Your task to perform on an android device: add a contact in the contacts app Image 0: 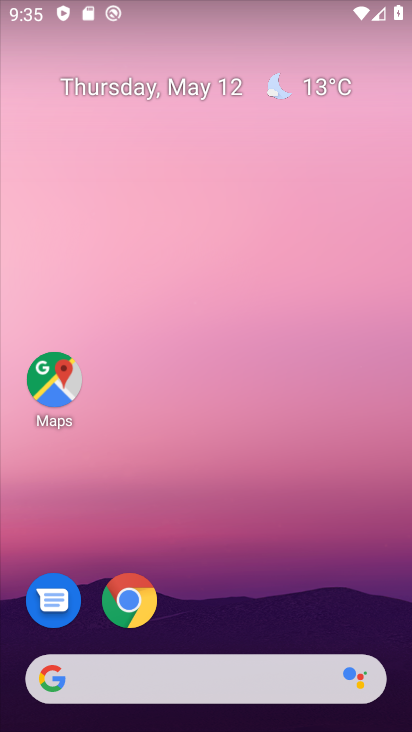
Step 0: drag from (233, 552) to (265, 38)
Your task to perform on an android device: add a contact in the contacts app Image 1: 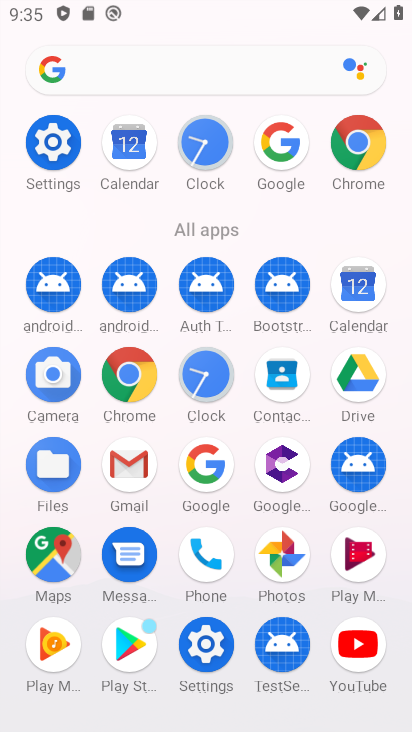
Step 1: click (286, 380)
Your task to perform on an android device: add a contact in the contacts app Image 2: 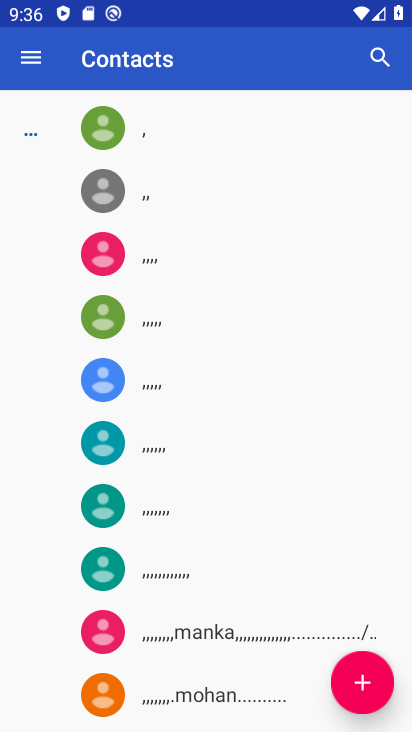
Step 2: click (362, 686)
Your task to perform on an android device: add a contact in the contacts app Image 3: 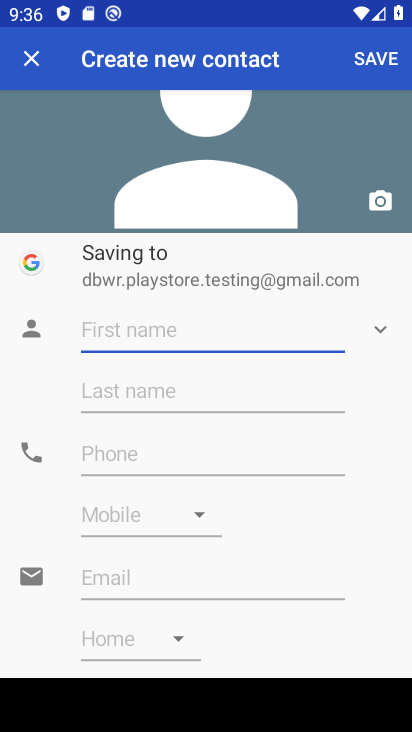
Step 3: click (145, 333)
Your task to perform on an android device: add a contact in the contacts app Image 4: 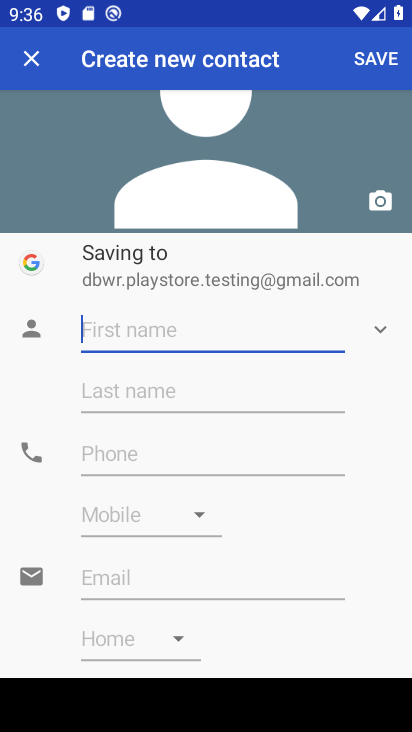
Step 4: type "cgcg"
Your task to perform on an android device: add a contact in the contacts app Image 5: 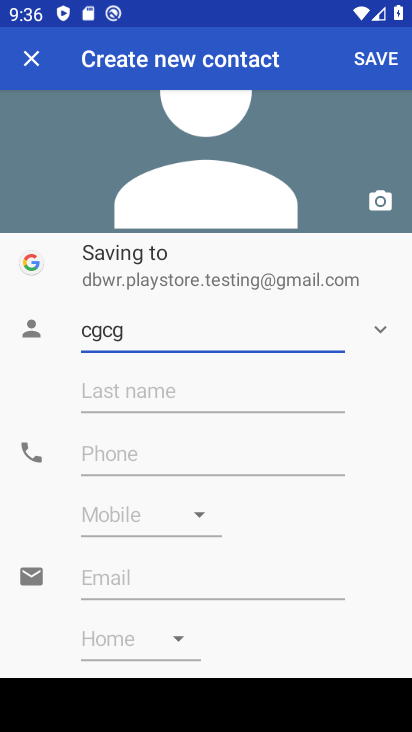
Step 5: click (154, 442)
Your task to perform on an android device: add a contact in the contacts app Image 6: 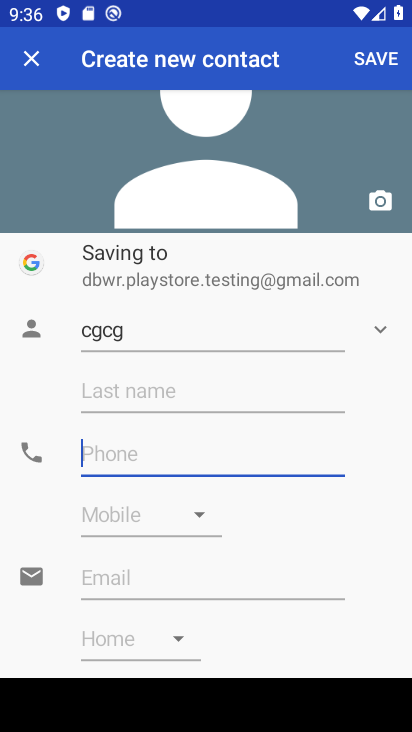
Step 6: type "775"
Your task to perform on an android device: add a contact in the contacts app Image 7: 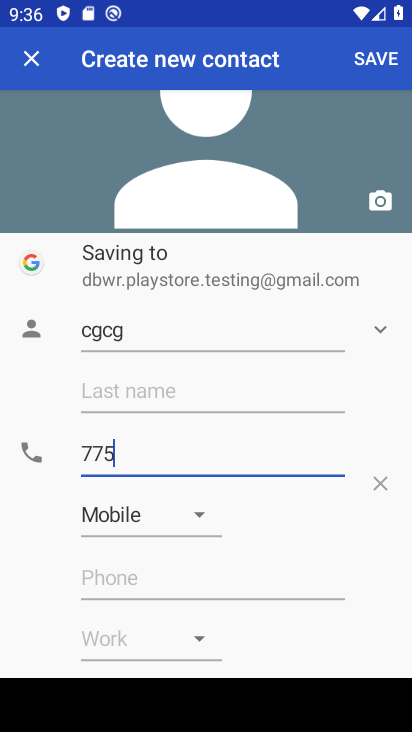
Step 7: click (380, 53)
Your task to perform on an android device: add a contact in the contacts app Image 8: 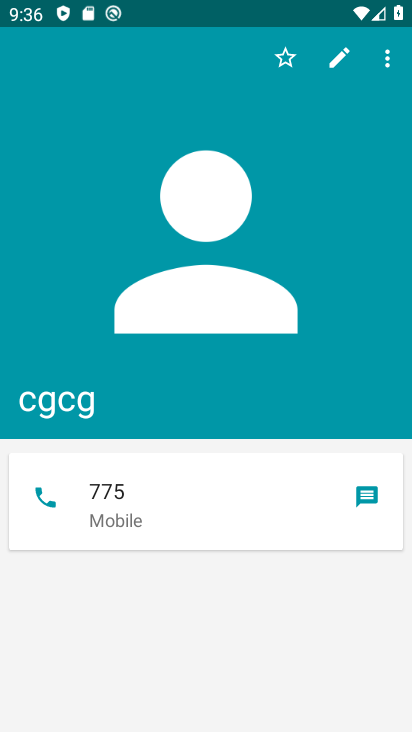
Step 8: task complete